Your task to perform on an android device: change the clock style Image 0: 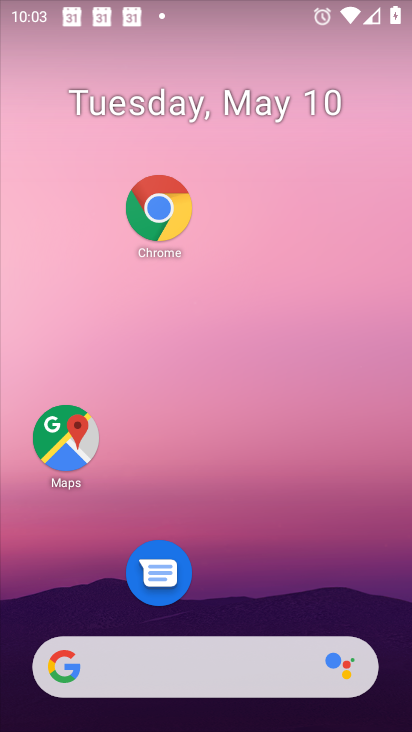
Step 0: drag from (302, 700) to (342, 315)
Your task to perform on an android device: change the clock style Image 1: 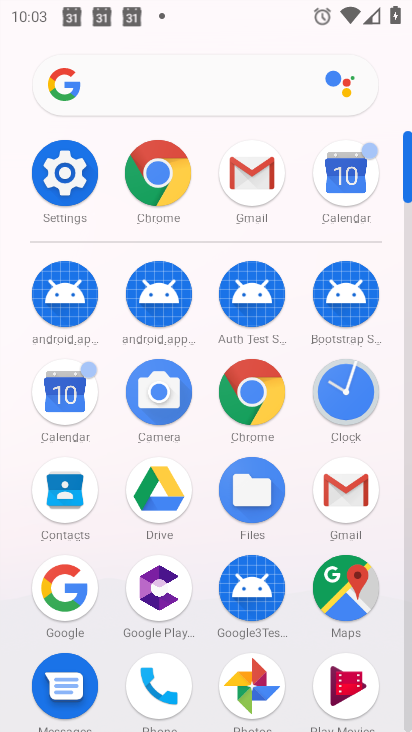
Step 1: click (361, 386)
Your task to perform on an android device: change the clock style Image 2: 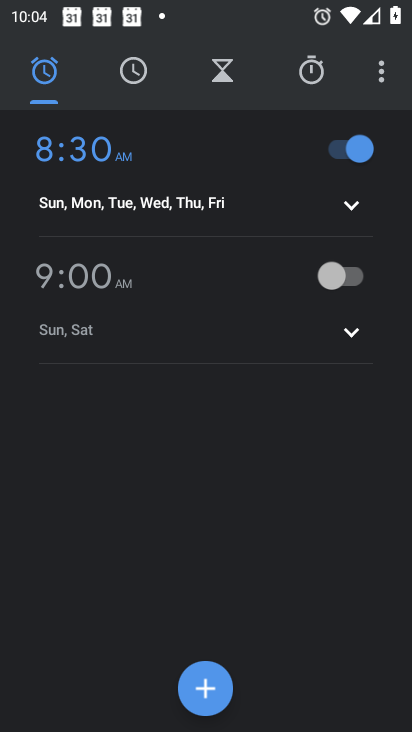
Step 2: click (377, 91)
Your task to perform on an android device: change the clock style Image 3: 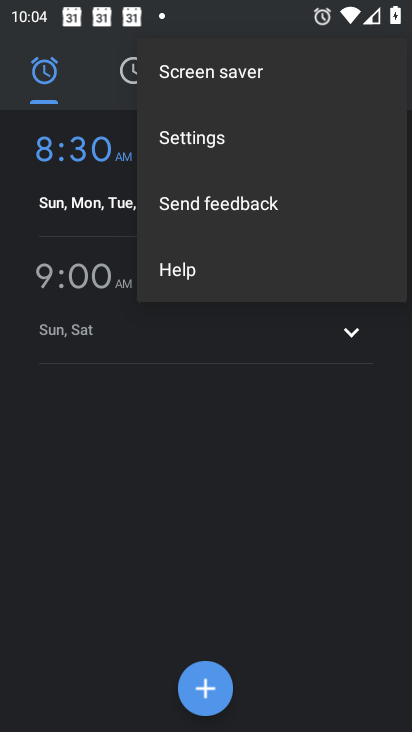
Step 3: click (247, 138)
Your task to perform on an android device: change the clock style Image 4: 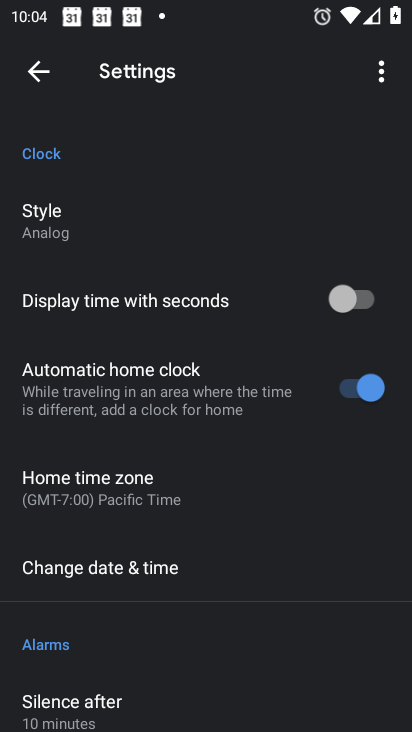
Step 4: click (147, 213)
Your task to perform on an android device: change the clock style Image 5: 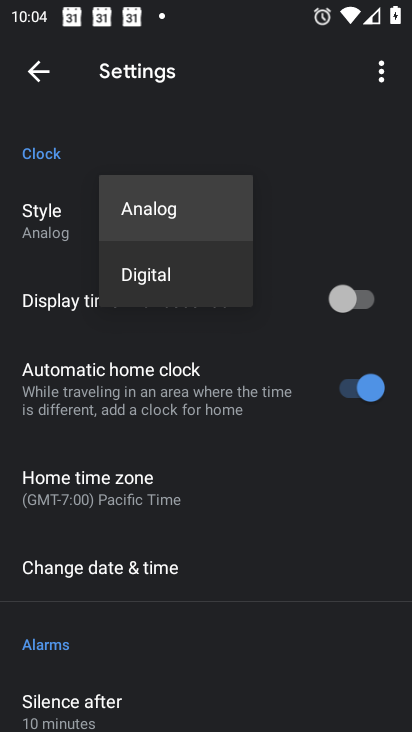
Step 5: click (142, 273)
Your task to perform on an android device: change the clock style Image 6: 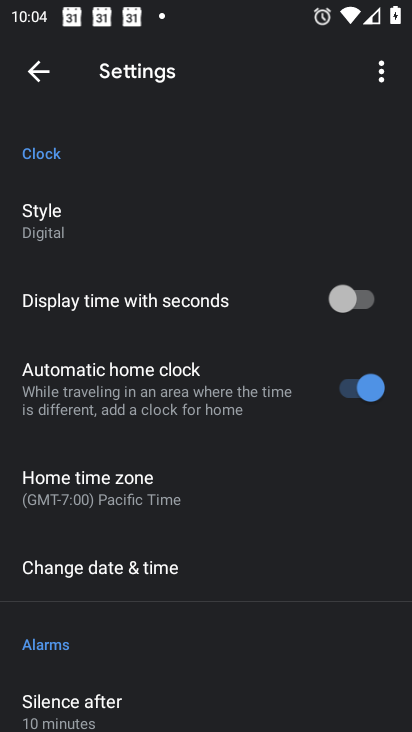
Step 6: task complete